Your task to perform on an android device: turn off data saver in the chrome app Image 0: 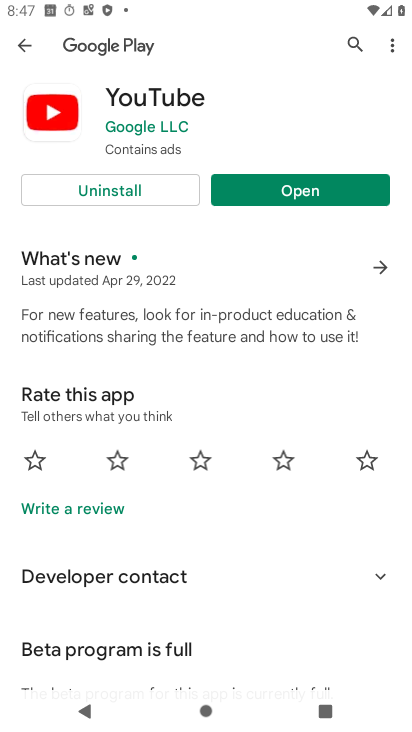
Step 0: press home button
Your task to perform on an android device: turn off data saver in the chrome app Image 1: 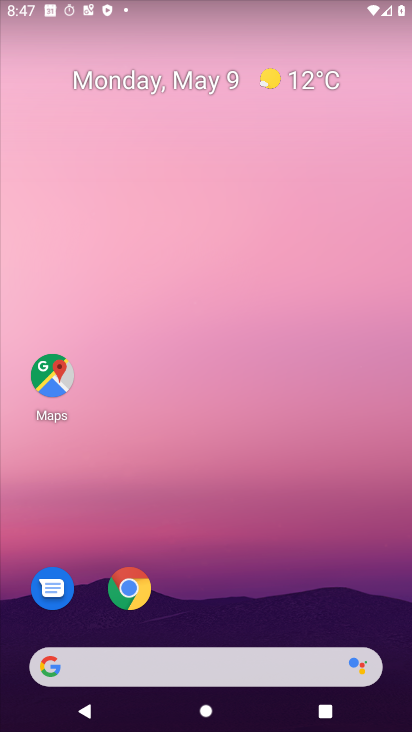
Step 1: drag from (157, 675) to (281, 164)
Your task to perform on an android device: turn off data saver in the chrome app Image 2: 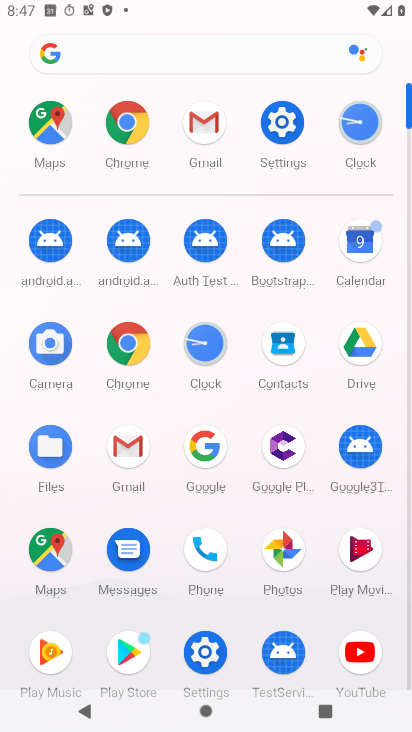
Step 2: click (125, 133)
Your task to perform on an android device: turn off data saver in the chrome app Image 3: 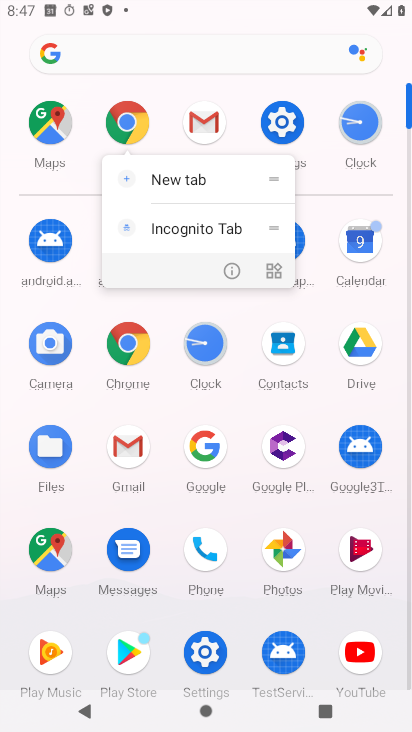
Step 3: click (125, 125)
Your task to perform on an android device: turn off data saver in the chrome app Image 4: 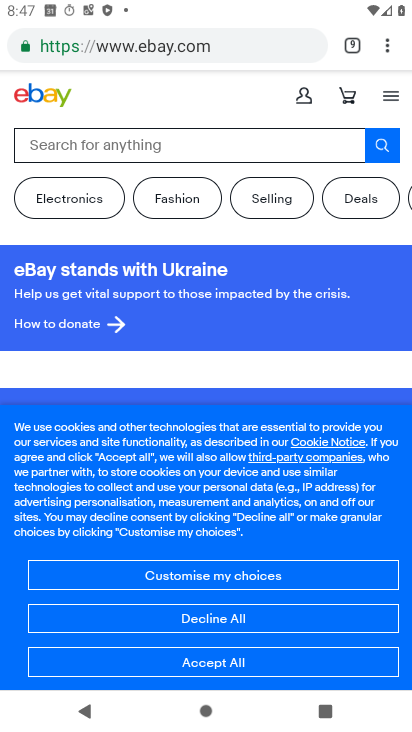
Step 4: drag from (384, 48) to (244, 555)
Your task to perform on an android device: turn off data saver in the chrome app Image 5: 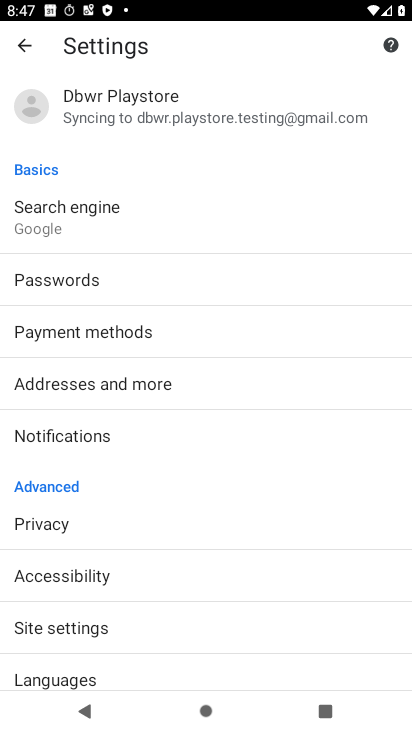
Step 5: drag from (138, 632) to (231, 384)
Your task to perform on an android device: turn off data saver in the chrome app Image 6: 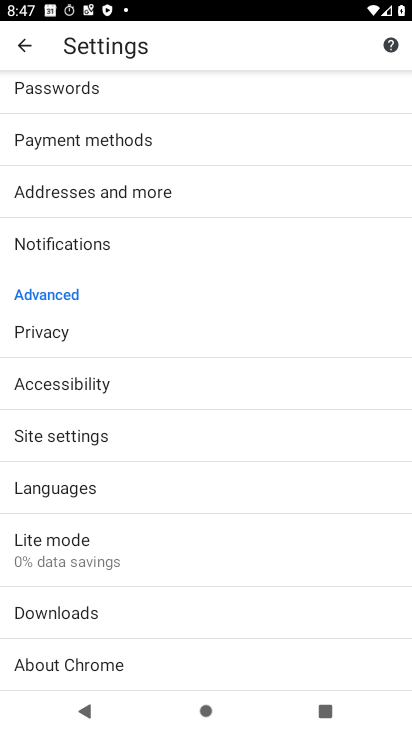
Step 6: click (68, 553)
Your task to perform on an android device: turn off data saver in the chrome app Image 7: 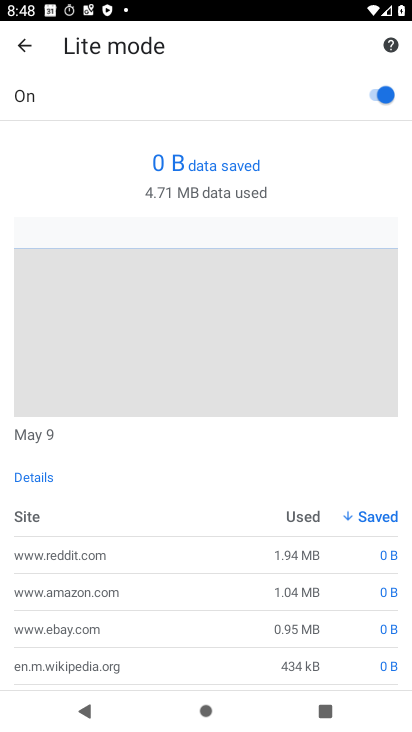
Step 7: click (372, 91)
Your task to perform on an android device: turn off data saver in the chrome app Image 8: 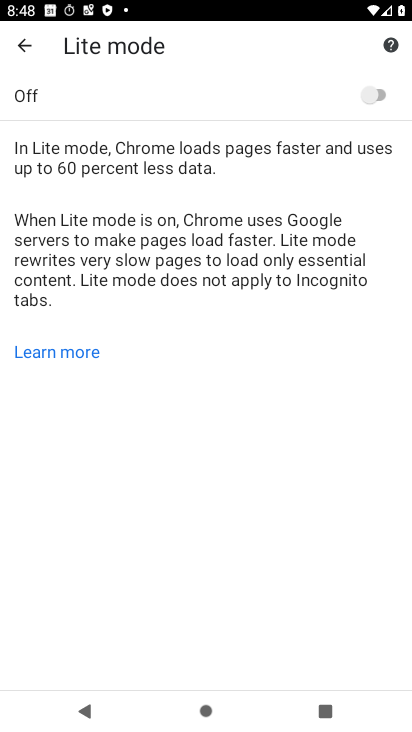
Step 8: task complete